Your task to perform on an android device: Show me productivity apps on the Play Store Image 0: 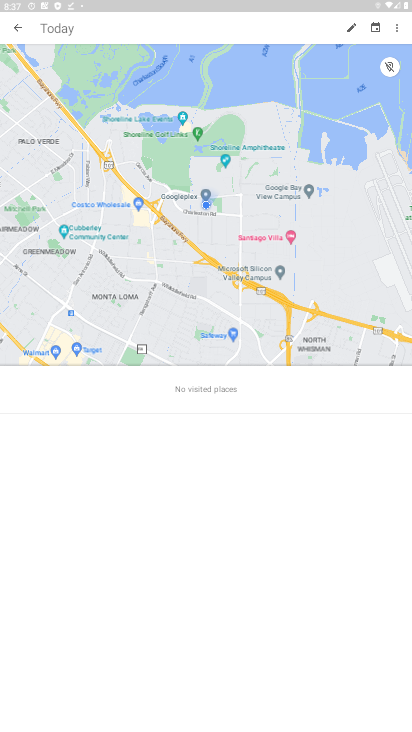
Step 0: press home button
Your task to perform on an android device: Show me productivity apps on the Play Store Image 1: 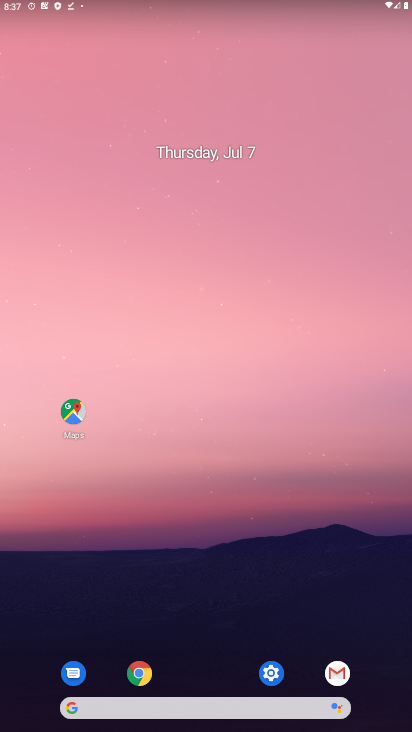
Step 1: drag from (239, 716) to (250, 102)
Your task to perform on an android device: Show me productivity apps on the Play Store Image 2: 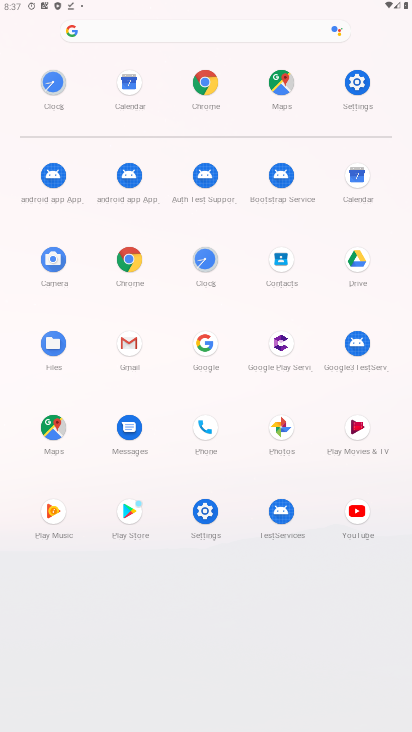
Step 2: click (135, 511)
Your task to perform on an android device: Show me productivity apps on the Play Store Image 3: 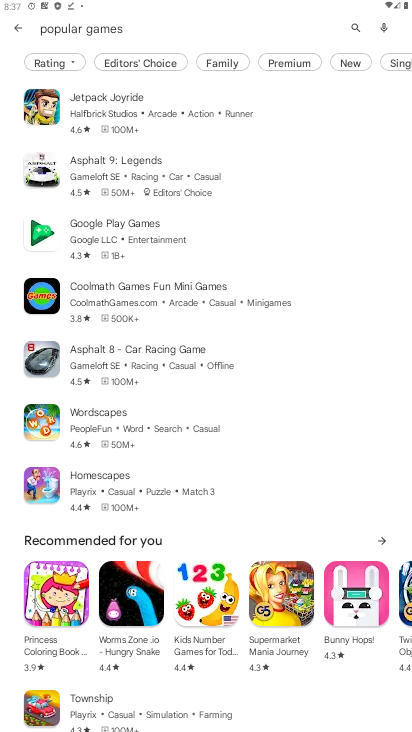
Step 3: click (360, 24)
Your task to perform on an android device: Show me productivity apps on the Play Store Image 4: 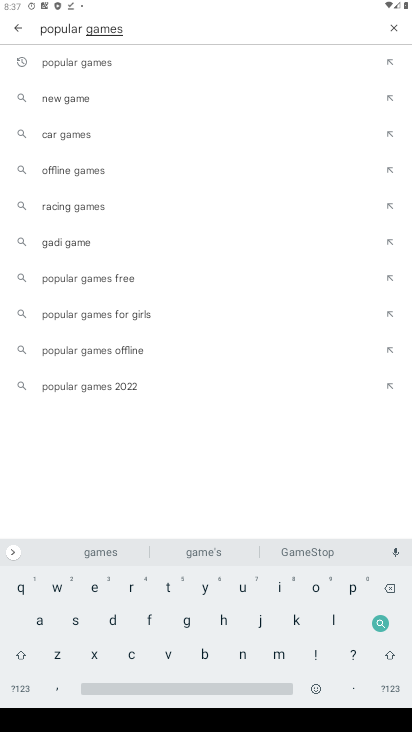
Step 4: click (393, 25)
Your task to perform on an android device: Show me productivity apps on the Play Store Image 5: 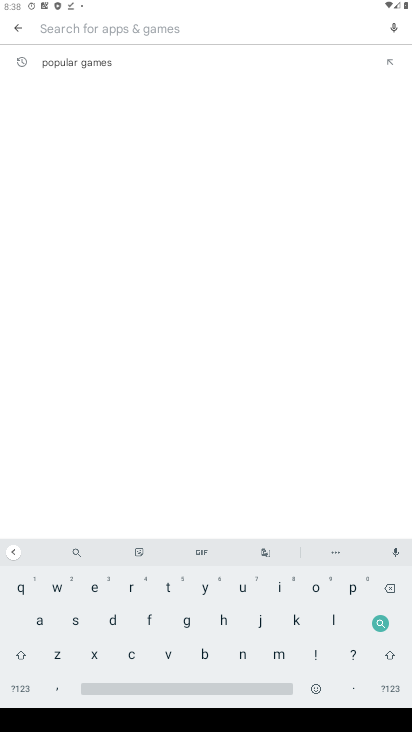
Step 5: click (350, 588)
Your task to perform on an android device: Show me productivity apps on the Play Store Image 6: 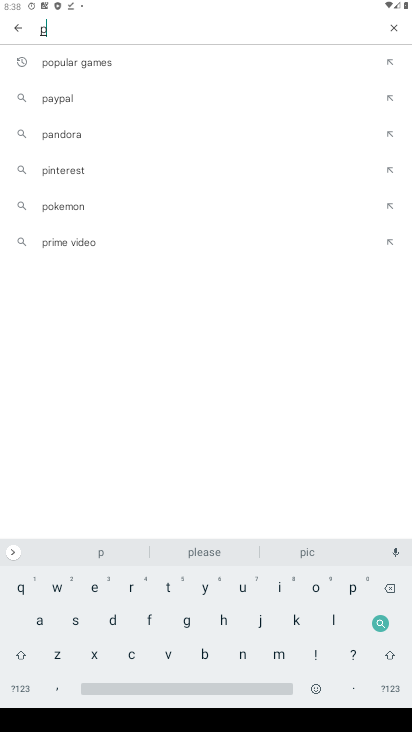
Step 6: click (131, 583)
Your task to perform on an android device: Show me productivity apps on the Play Store Image 7: 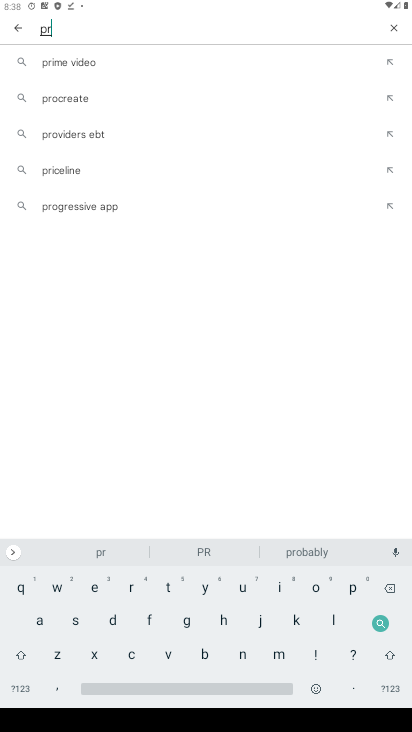
Step 7: click (316, 584)
Your task to perform on an android device: Show me productivity apps on the Play Store Image 8: 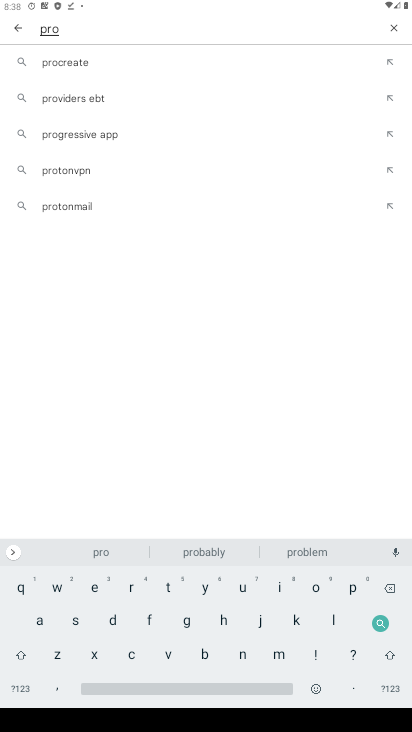
Step 8: click (118, 618)
Your task to perform on an android device: Show me productivity apps on the Play Store Image 9: 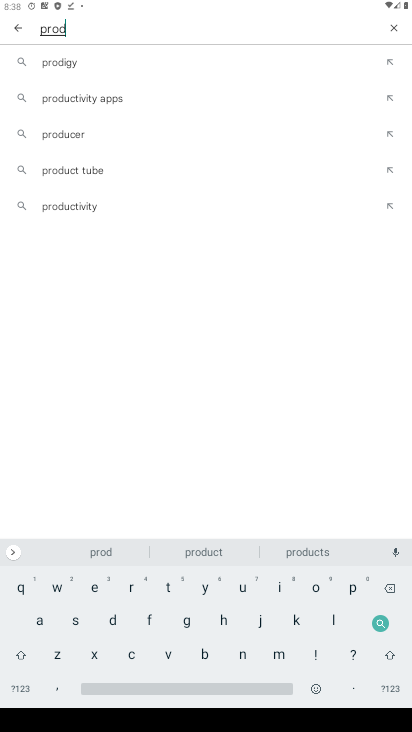
Step 9: click (84, 92)
Your task to perform on an android device: Show me productivity apps on the Play Store Image 10: 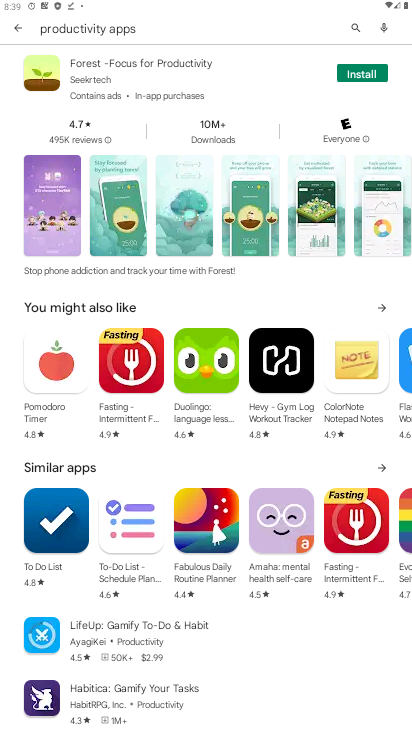
Step 10: task complete